Your task to perform on an android device: change the clock display to digital Image 0: 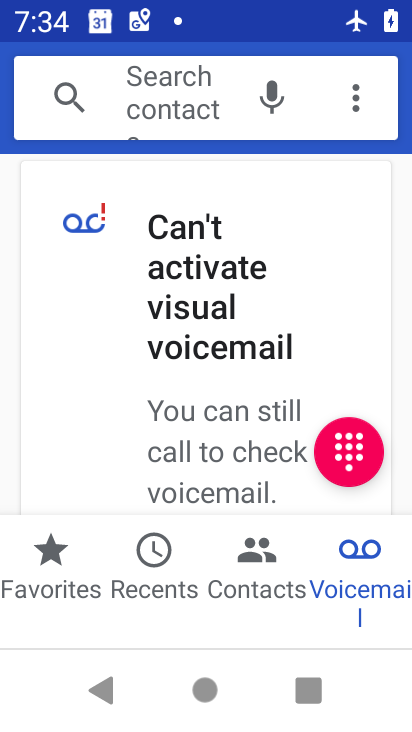
Step 0: press home button
Your task to perform on an android device: change the clock display to digital Image 1: 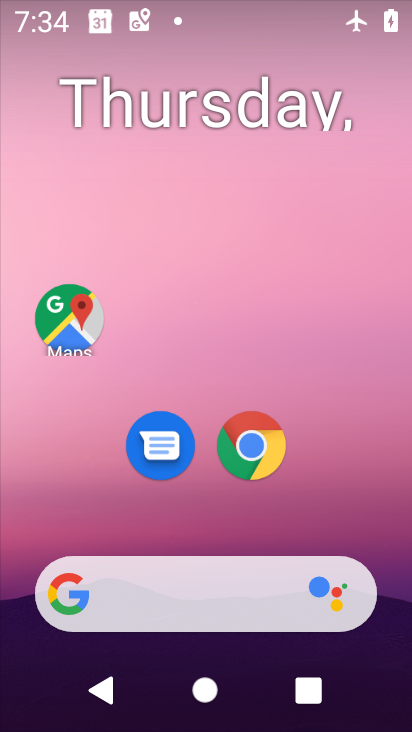
Step 1: drag from (394, 625) to (357, 51)
Your task to perform on an android device: change the clock display to digital Image 2: 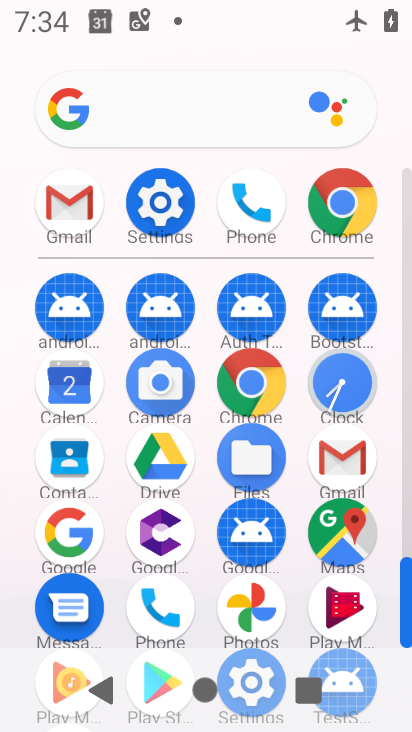
Step 2: click (354, 369)
Your task to perform on an android device: change the clock display to digital Image 3: 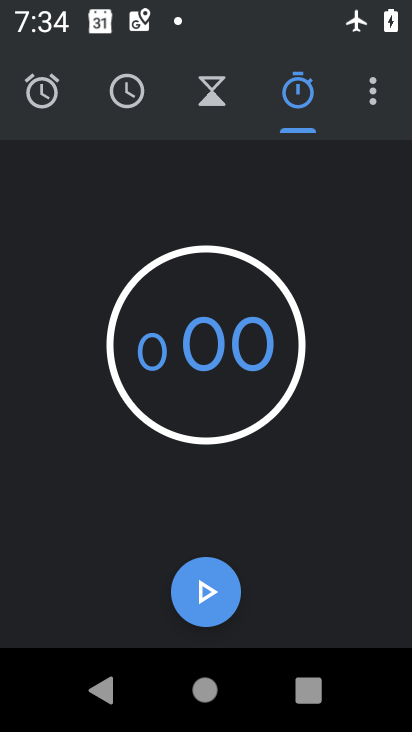
Step 3: click (370, 87)
Your task to perform on an android device: change the clock display to digital Image 4: 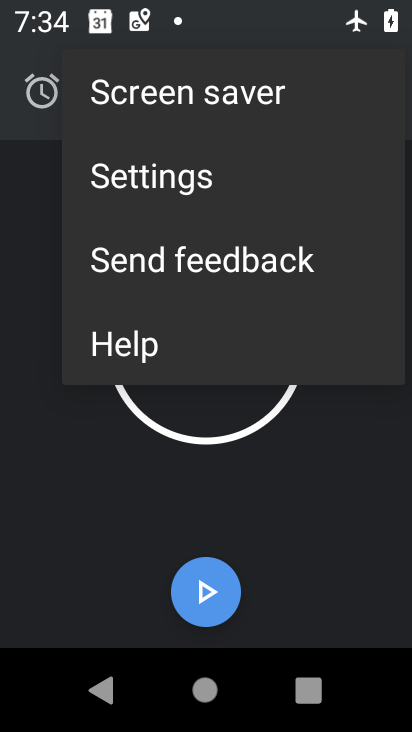
Step 4: click (199, 173)
Your task to perform on an android device: change the clock display to digital Image 5: 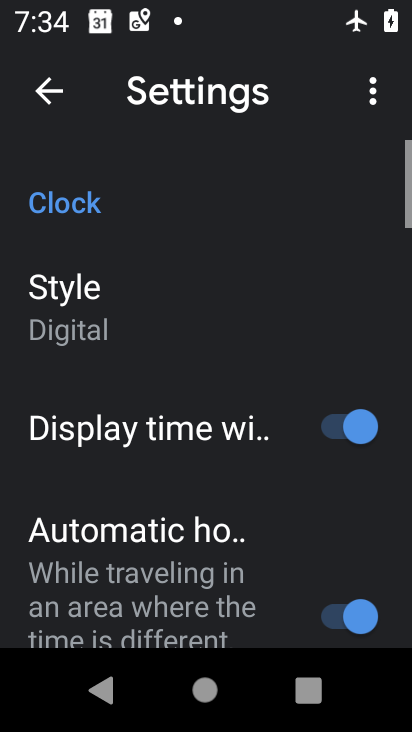
Step 5: click (110, 321)
Your task to perform on an android device: change the clock display to digital Image 6: 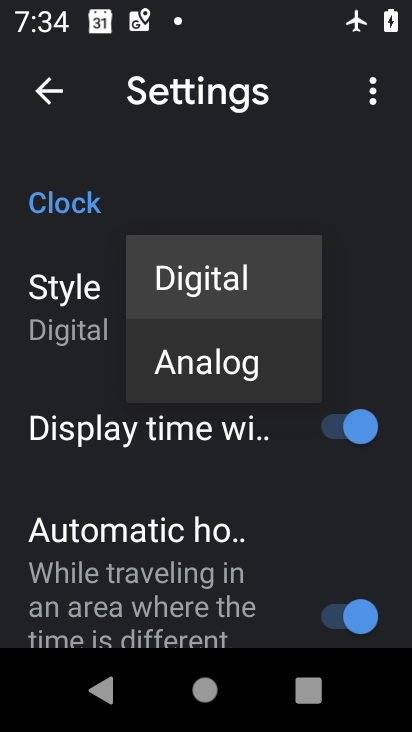
Step 6: click (210, 289)
Your task to perform on an android device: change the clock display to digital Image 7: 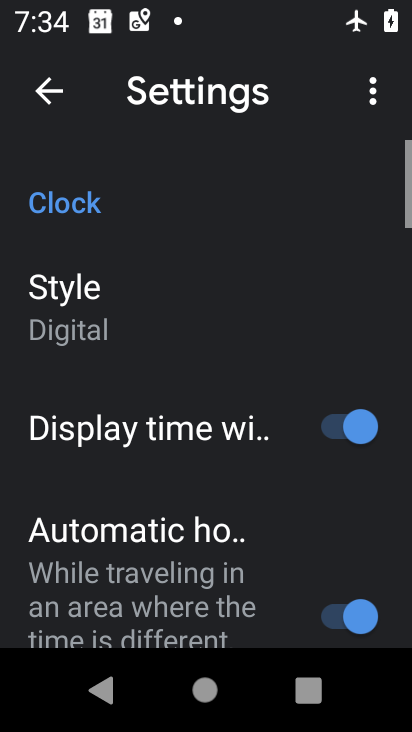
Step 7: task complete